Your task to perform on an android device: turn vacation reply on in the gmail app Image 0: 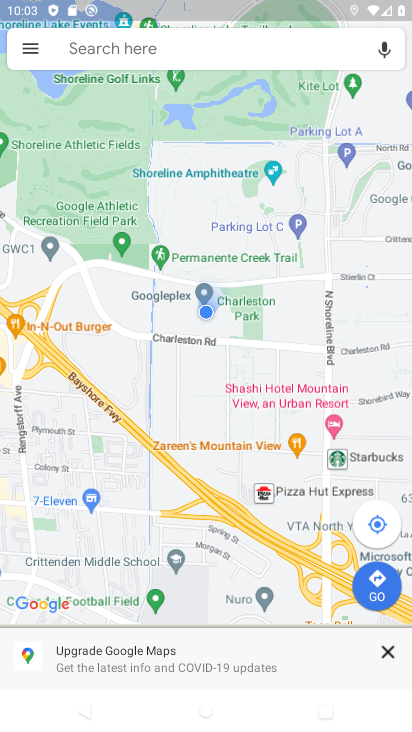
Step 0: press home button
Your task to perform on an android device: turn vacation reply on in the gmail app Image 1: 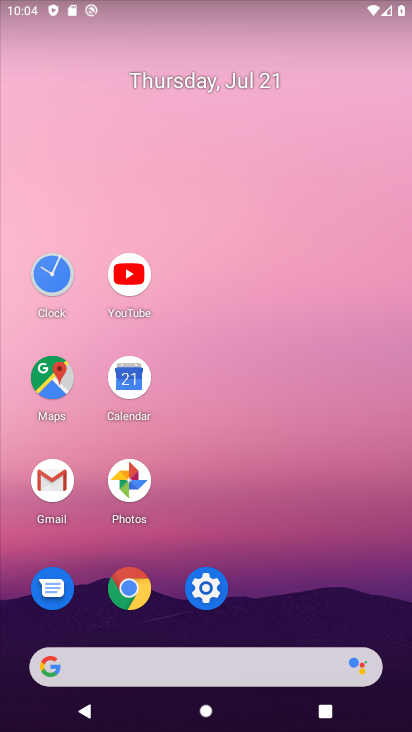
Step 1: click (53, 477)
Your task to perform on an android device: turn vacation reply on in the gmail app Image 2: 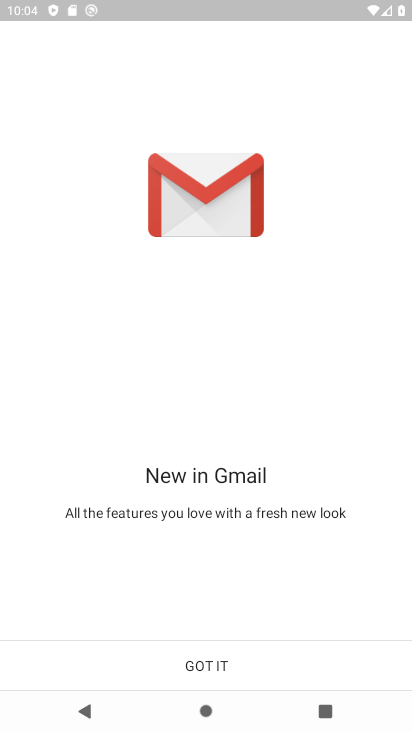
Step 2: click (204, 659)
Your task to perform on an android device: turn vacation reply on in the gmail app Image 3: 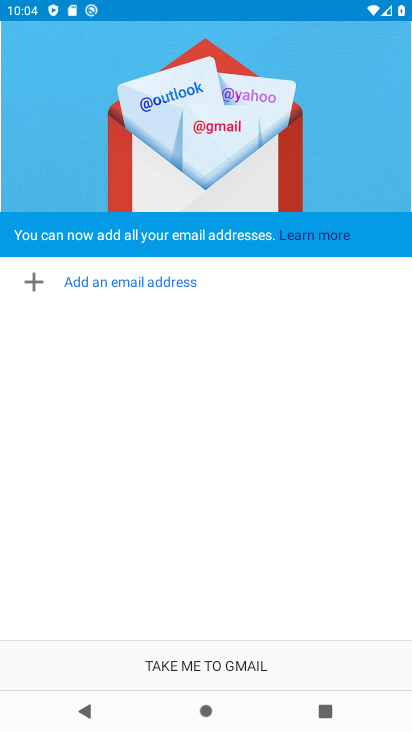
Step 3: click (204, 659)
Your task to perform on an android device: turn vacation reply on in the gmail app Image 4: 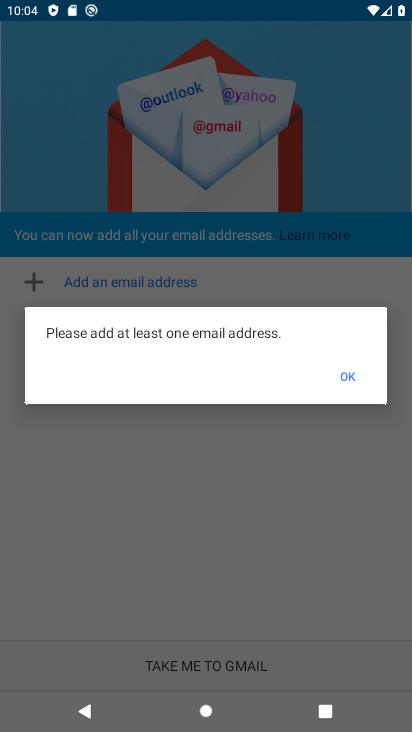
Step 4: click (342, 373)
Your task to perform on an android device: turn vacation reply on in the gmail app Image 5: 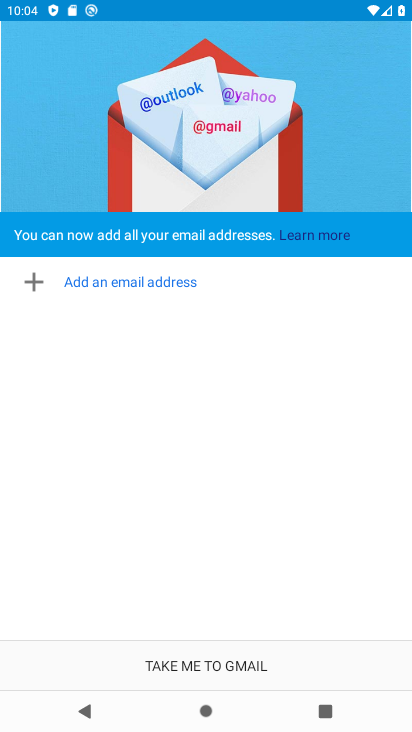
Step 5: click (185, 654)
Your task to perform on an android device: turn vacation reply on in the gmail app Image 6: 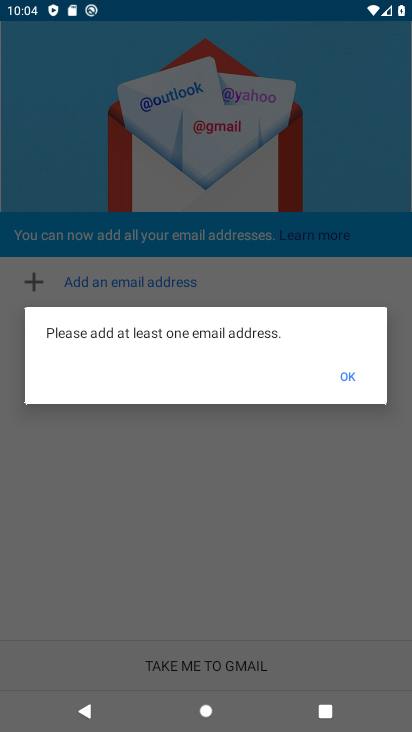
Step 6: click (344, 372)
Your task to perform on an android device: turn vacation reply on in the gmail app Image 7: 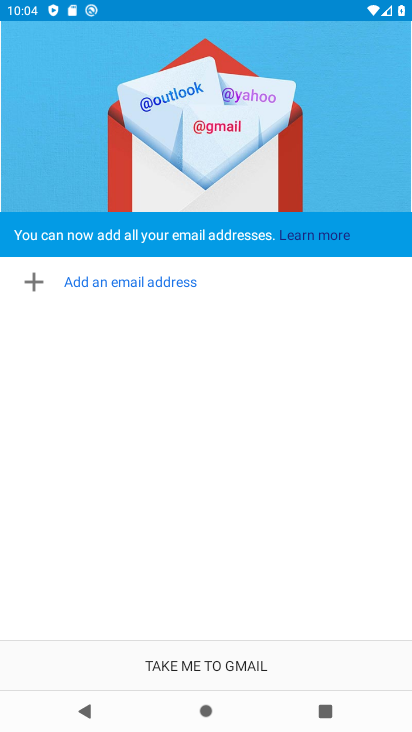
Step 7: click (214, 655)
Your task to perform on an android device: turn vacation reply on in the gmail app Image 8: 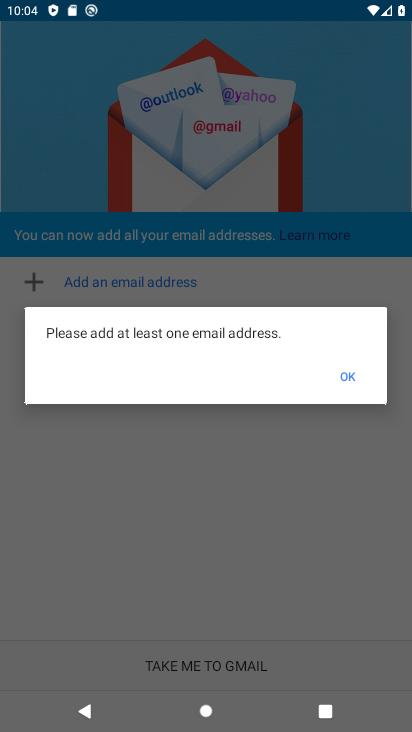
Step 8: click (348, 373)
Your task to perform on an android device: turn vacation reply on in the gmail app Image 9: 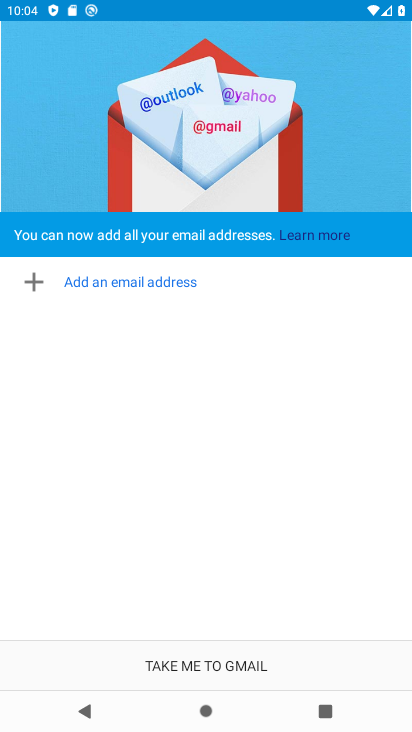
Step 9: task complete